Your task to perform on an android device: check storage Image 0: 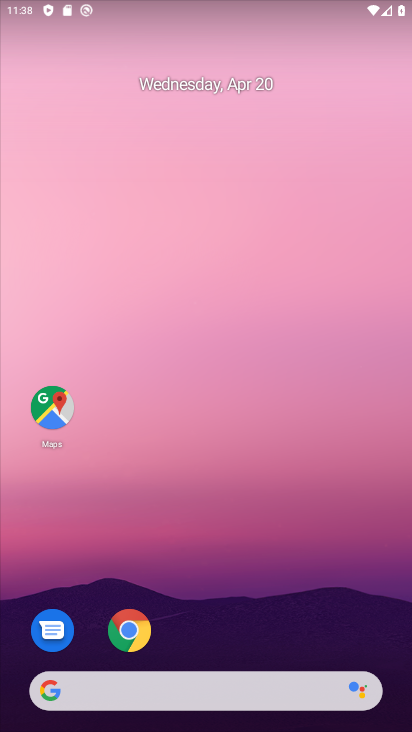
Step 0: click (364, 412)
Your task to perform on an android device: check storage Image 1: 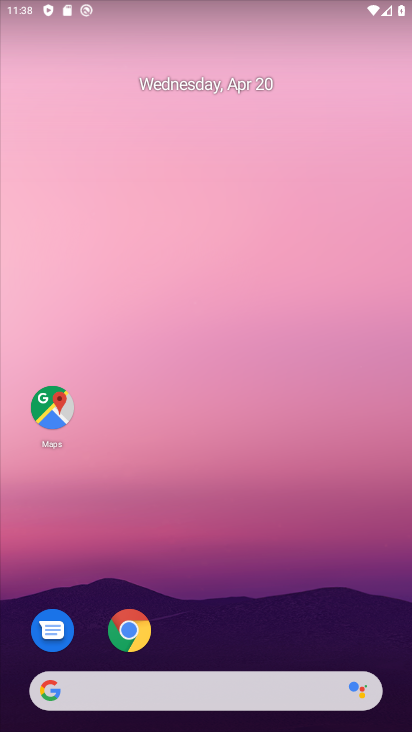
Step 1: drag from (208, 544) to (271, 159)
Your task to perform on an android device: check storage Image 2: 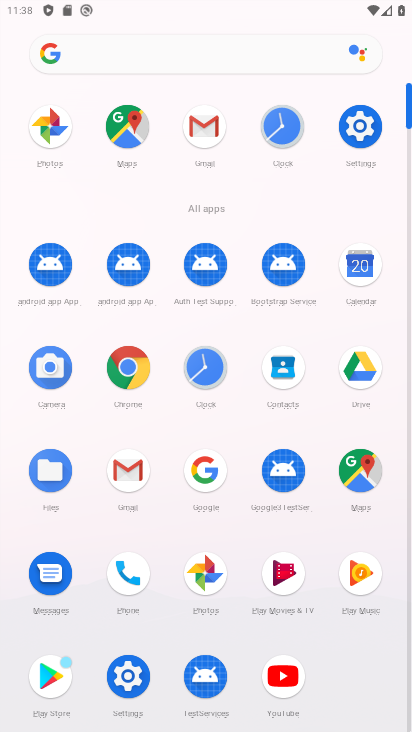
Step 2: click (127, 669)
Your task to perform on an android device: check storage Image 3: 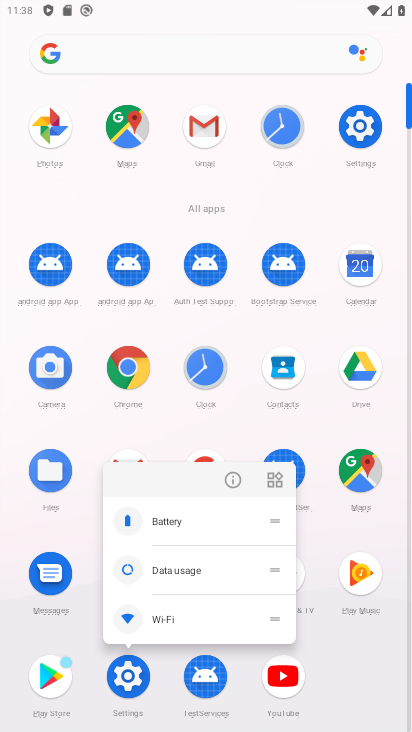
Step 3: click (237, 486)
Your task to perform on an android device: check storage Image 4: 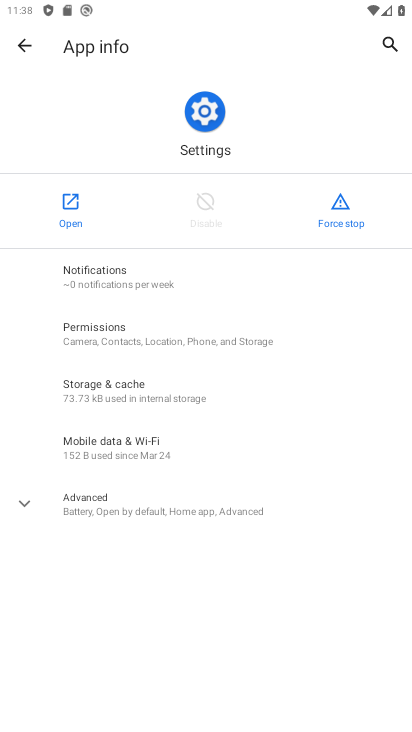
Step 4: click (73, 207)
Your task to perform on an android device: check storage Image 5: 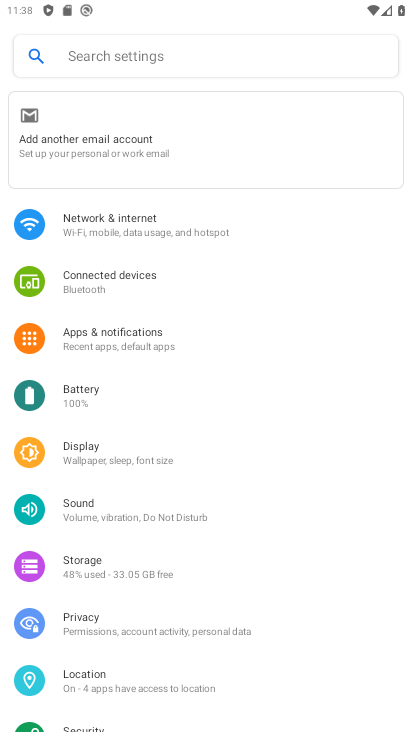
Step 5: click (123, 584)
Your task to perform on an android device: check storage Image 6: 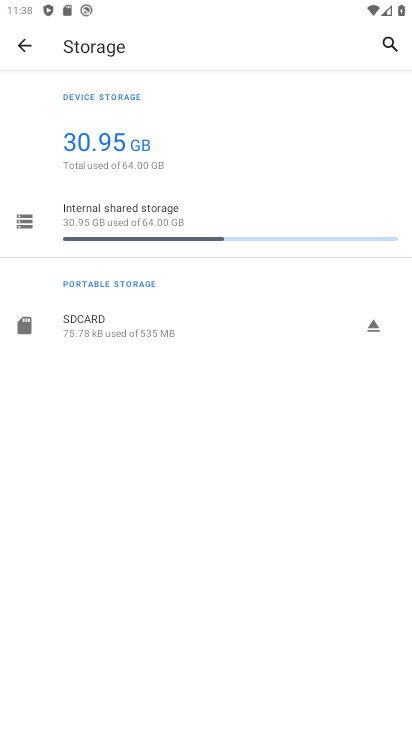
Step 6: task complete